Your task to perform on an android device: turn notification dots on Image 0: 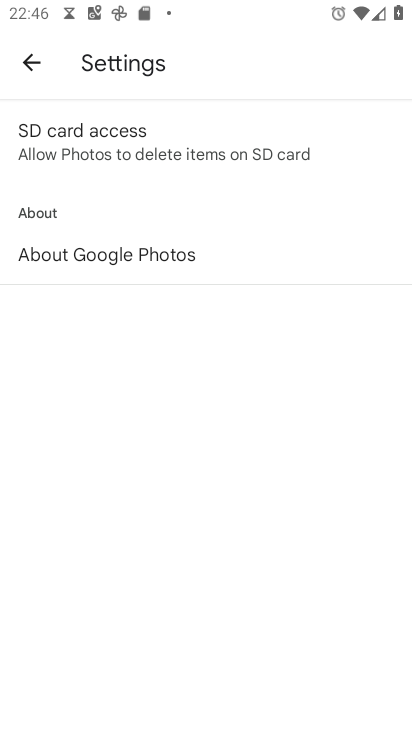
Step 0: press home button
Your task to perform on an android device: turn notification dots on Image 1: 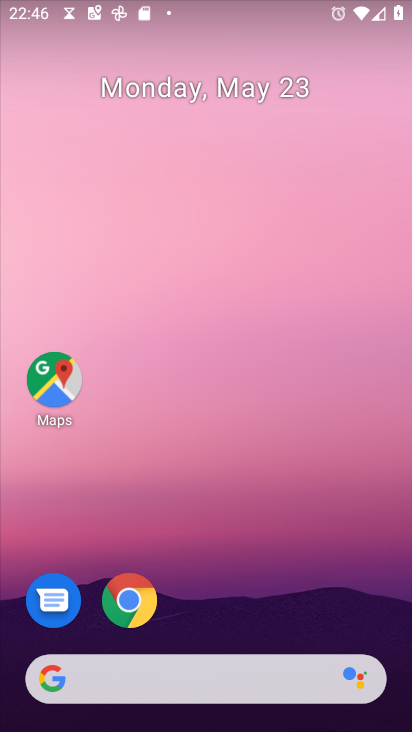
Step 1: drag from (183, 725) to (186, 72)
Your task to perform on an android device: turn notification dots on Image 2: 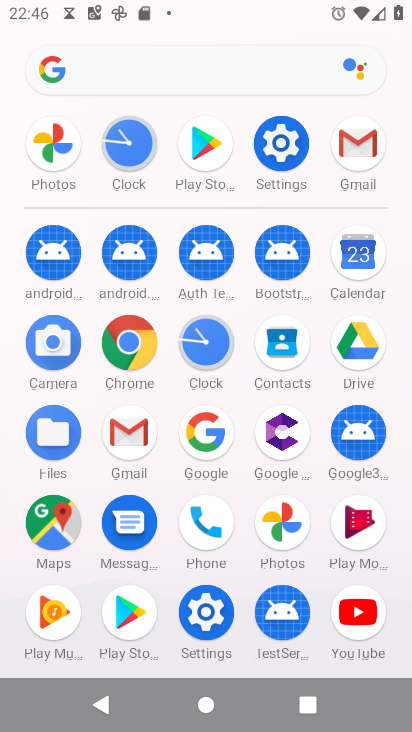
Step 2: click (282, 147)
Your task to perform on an android device: turn notification dots on Image 3: 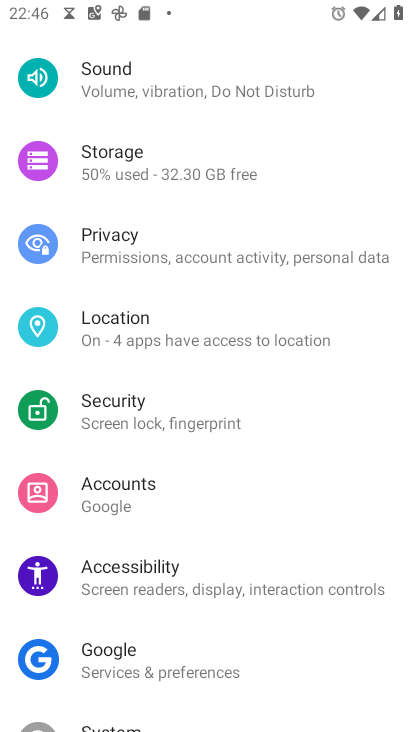
Step 3: drag from (255, 135) to (297, 619)
Your task to perform on an android device: turn notification dots on Image 4: 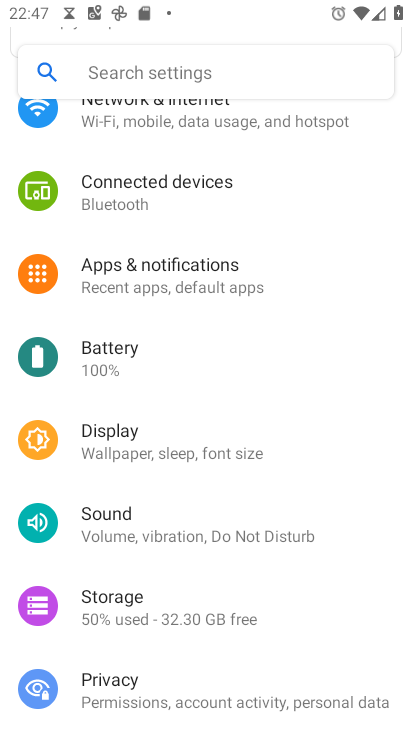
Step 4: click (171, 277)
Your task to perform on an android device: turn notification dots on Image 5: 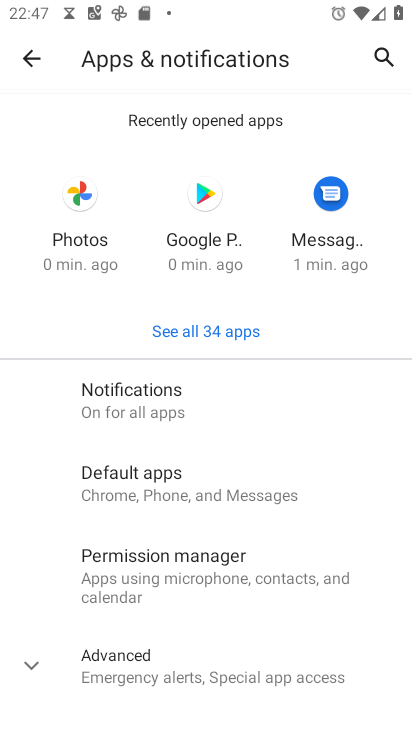
Step 5: click (110, 407)
Your task to perform on an android device: turn notification dots on Image 6: 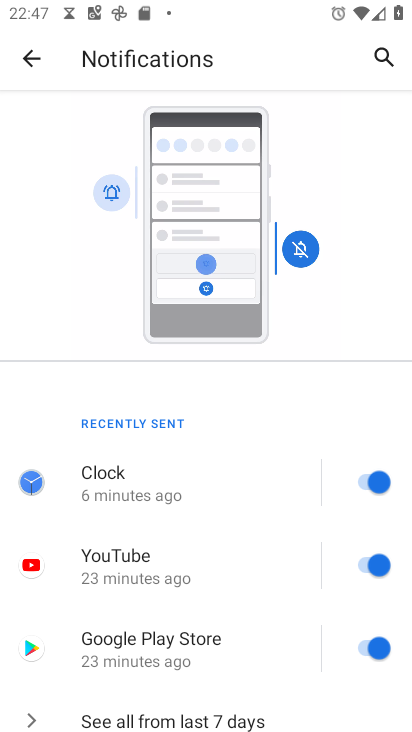
Step 6: drag from (153, 687) to (151, 372)
Your task to perform on an android device: turn notification dots on Image 7: 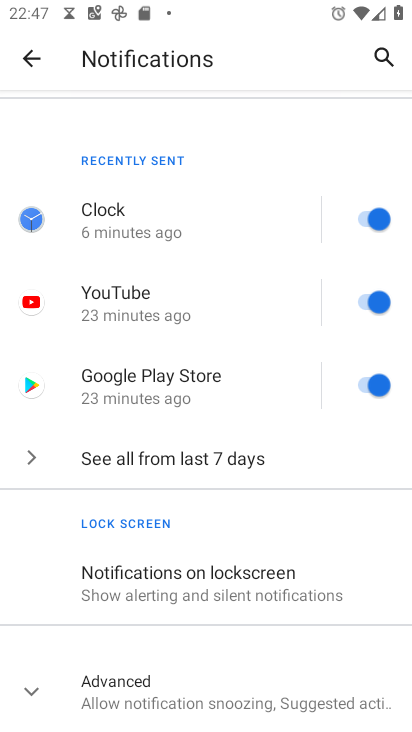
Step 7: click (158, 685)
Your task to perform on an android device: turn notification dots on Image 8: 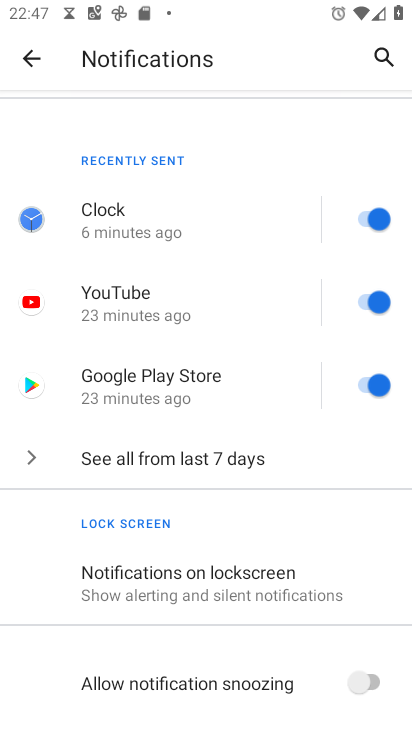
Step 8: task complete